Your task to perform on an android device: turn off airplane mode Image 0: 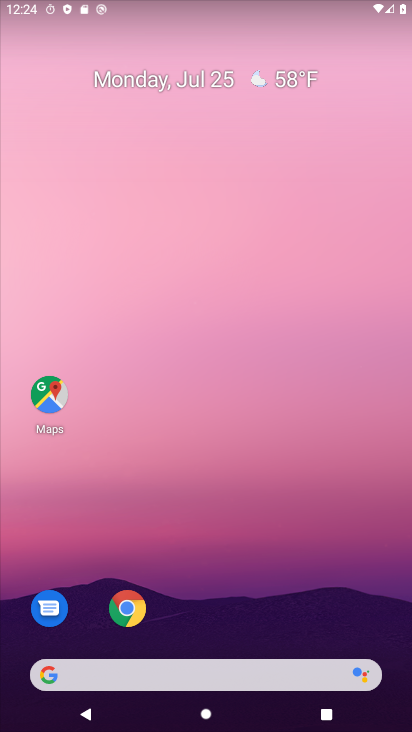
Step 0: drag from (290, 166) to (297, 131)
Your task to perform on an android device: turn off airplane mode Image 1: 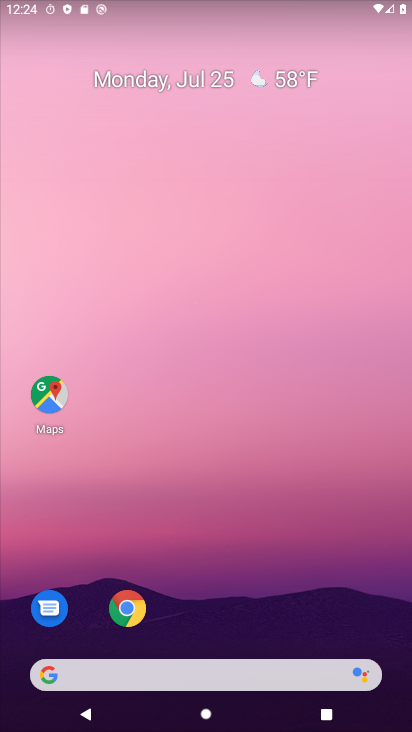
Step 1: drag from (334, 560) to (325, 0)
Your task to perform on an android device: turn off airplane mode Image 2: 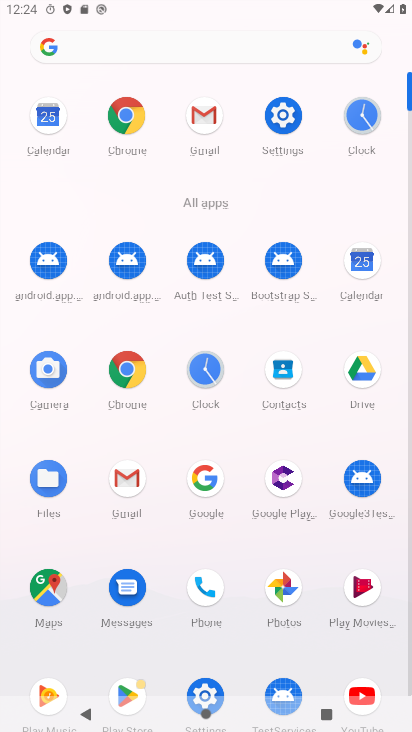
Step 2: click (288, 117)
Your task to perform on an android device: turn off airplane mode Image 3: 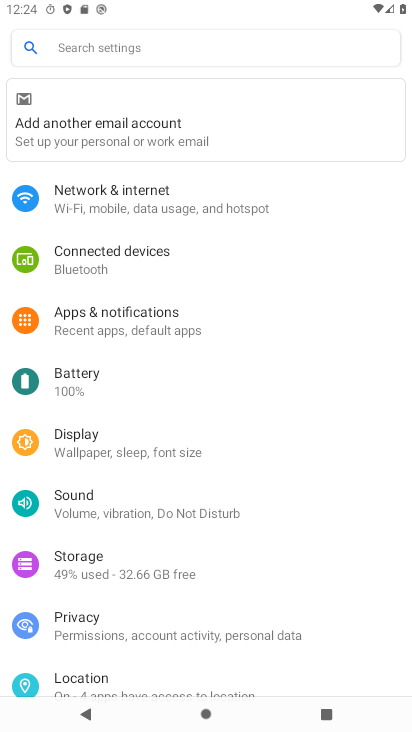
Step 3: click (154, 189)
Your task to perform on an android device: turn off airplane mode Image 4: 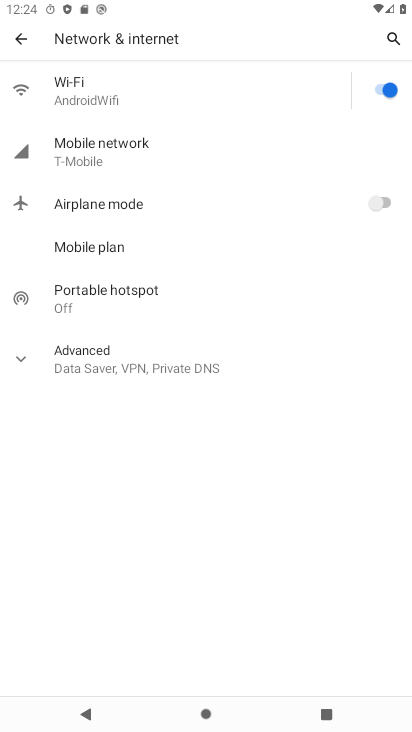
Step 4: task complete